Your task to perform on an android device: all mails in gmail Image 0: 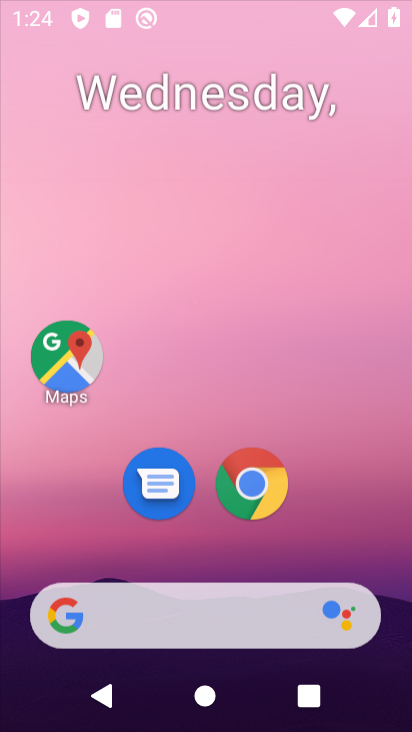
Step 0: press home button
Your task to perform on an android device: all mails in gmail Image 1: 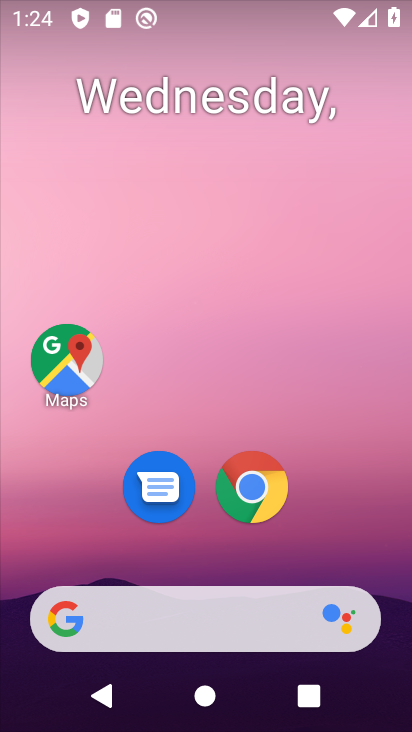
Step 1: drag from (354, 526) to (268, 133)
Your task to perform on an android device: all mails in gmail Image 2: 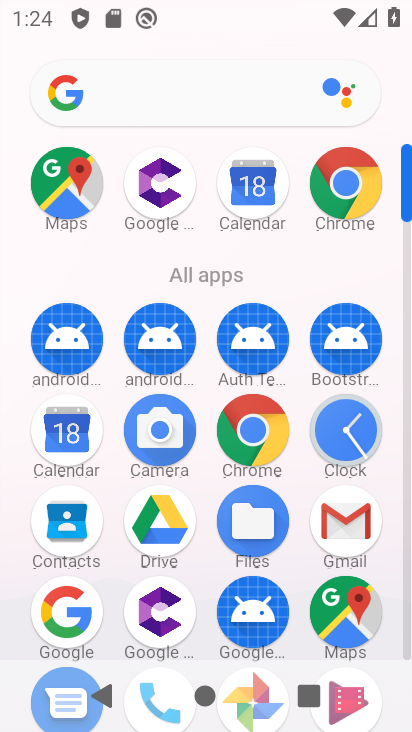
Step 2: click (335, 502)
Your task to perform on an android device: all mails in gmail Image 3: 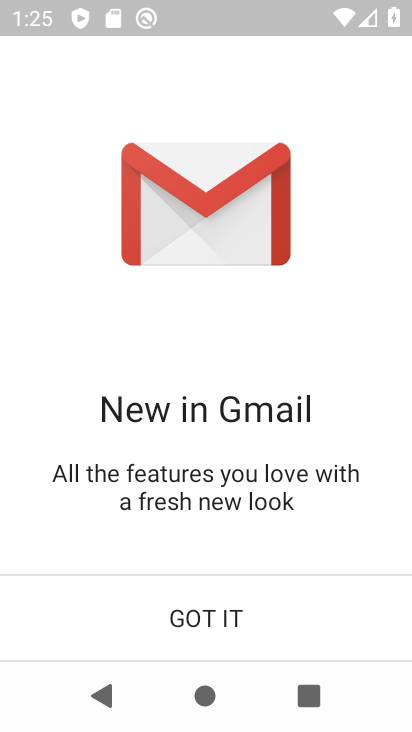
Step 3: click (199, 618)
Your task to perform on an android device: all mails in gmail Image 4: 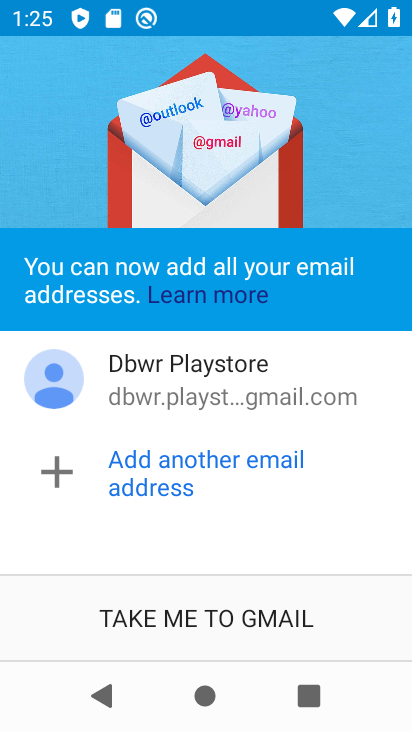
Step 4: click (212, 608)
Your task to perform on an android device: all mails in gmail Image 5: 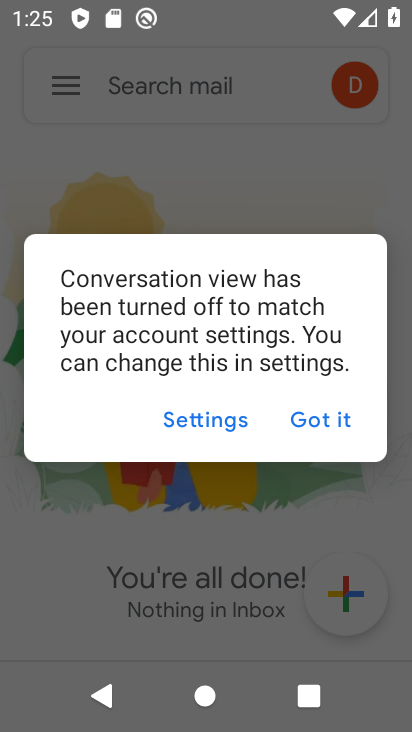
Step 5: click (327, 422)
Your task to perform on an android device: all mails in gmail Image 6: 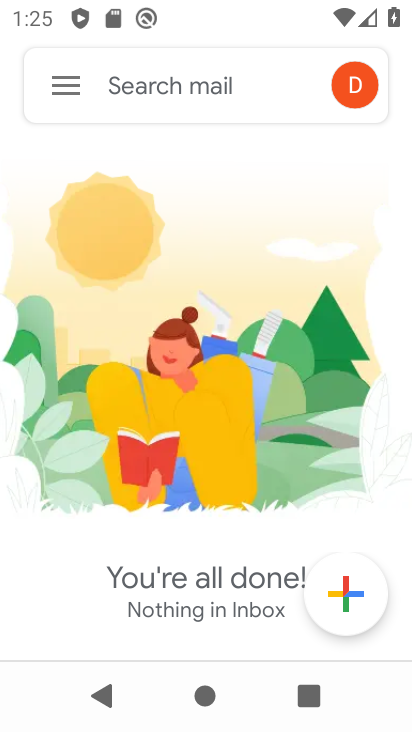
Step 6: click (72, 81)
Your task to perform on an android device: all mails in gmail Image 7: 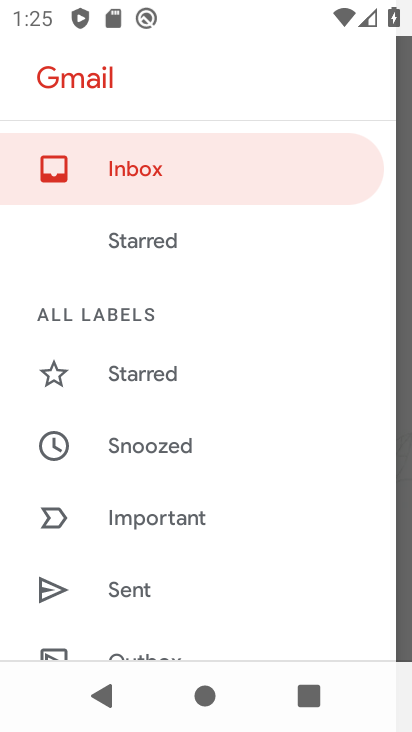
Step 7: drag from (172, 540) to (173, 133)
Your task to perform on an android device: all mails in gmail Image 8: 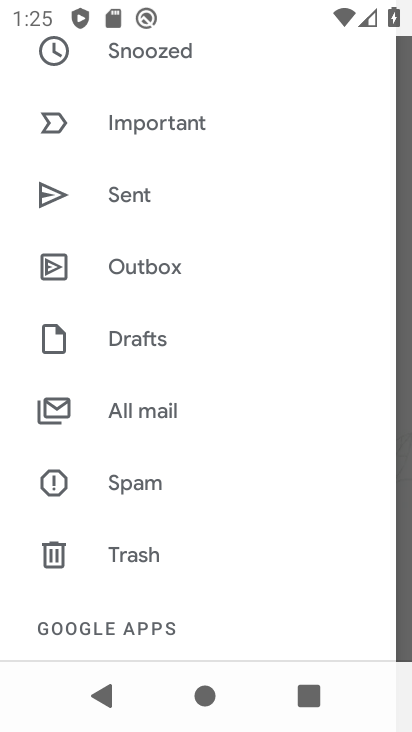
Step 8: drag from (238, 409) to (233, 242)
Your task to perform on an android device: all mails in gmail Image 9: 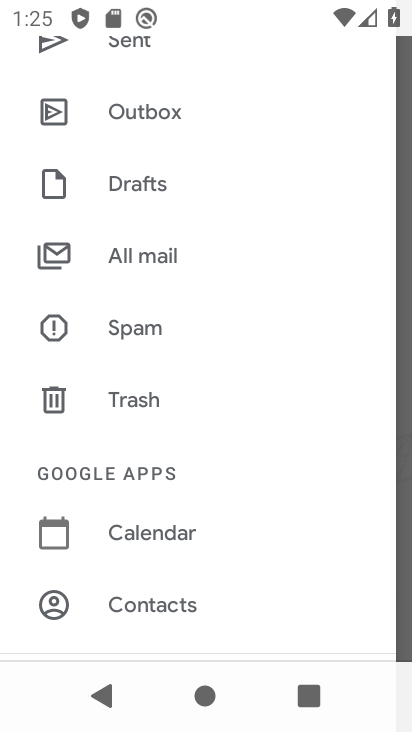
Step 9: click (119, 258)
Your task to perform on an android device: all mails in gmail Image 10: 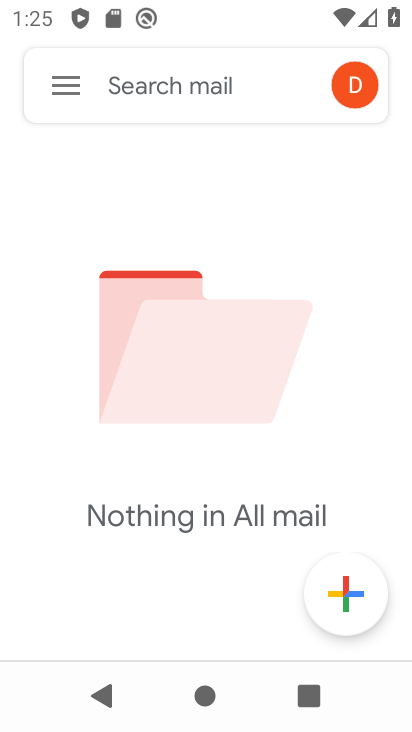
Step 10: task complete